Your task to perform on an android device: add a label to a message in the gmail app Image 0: 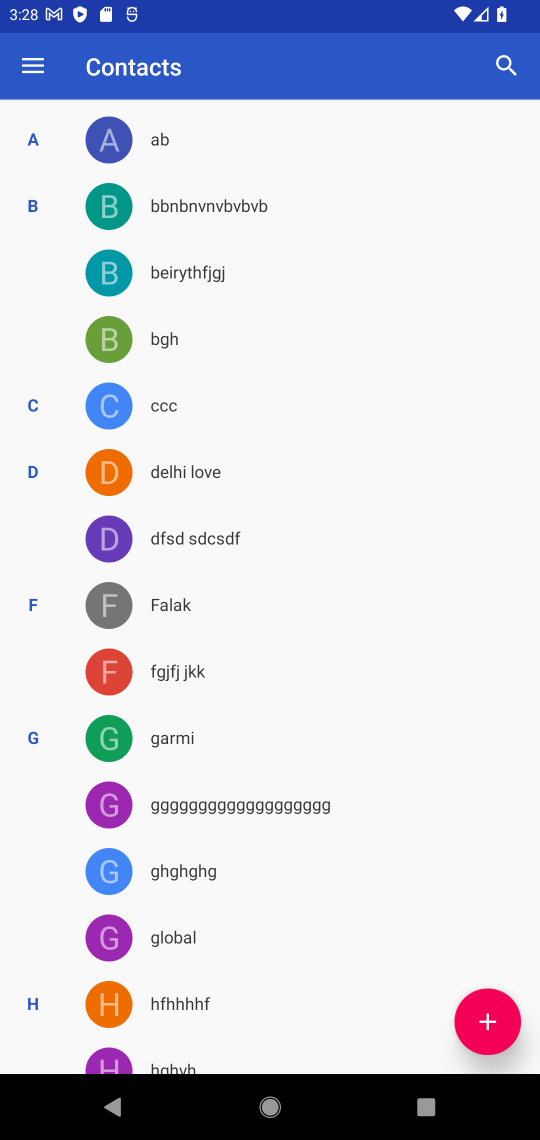
Step 0: press home button
Your task to perform on an android device: add a label to a message in the gmail app Image 1: 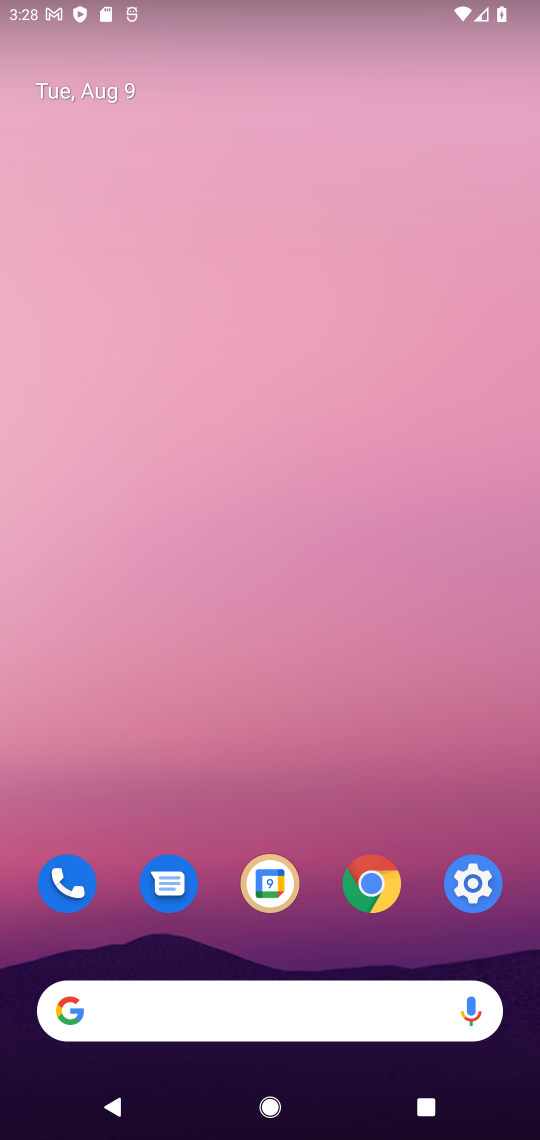
Step 1: drag from (367, 1037) to (303, 345)
Your task to perform on an android device: add a label to a message in the gmail app Image 2: 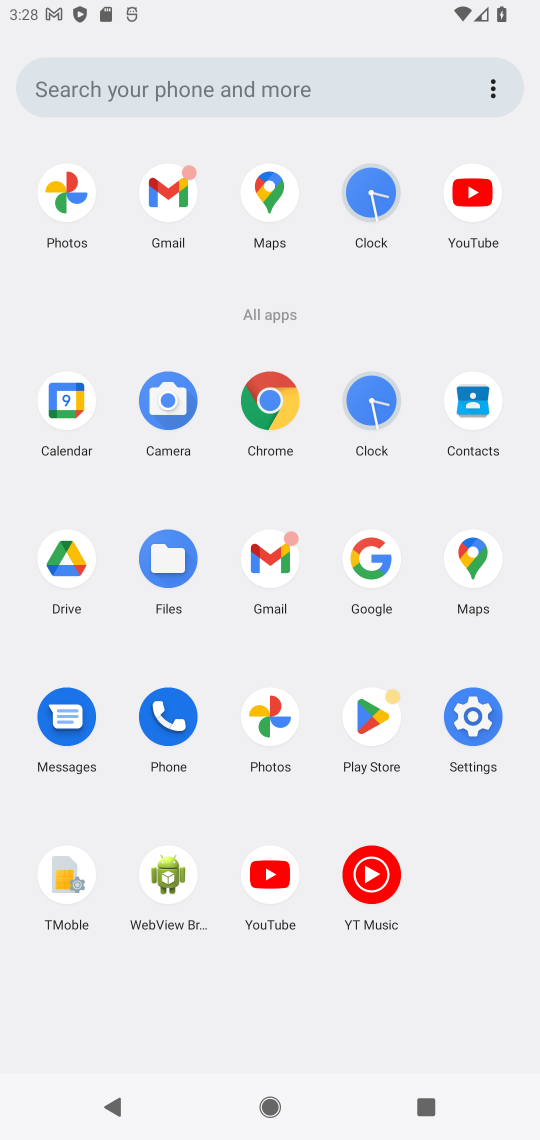
Step 2: click (169, 196)
Your task to perform on an android device: add a label to a message in the gmail app Image 3: 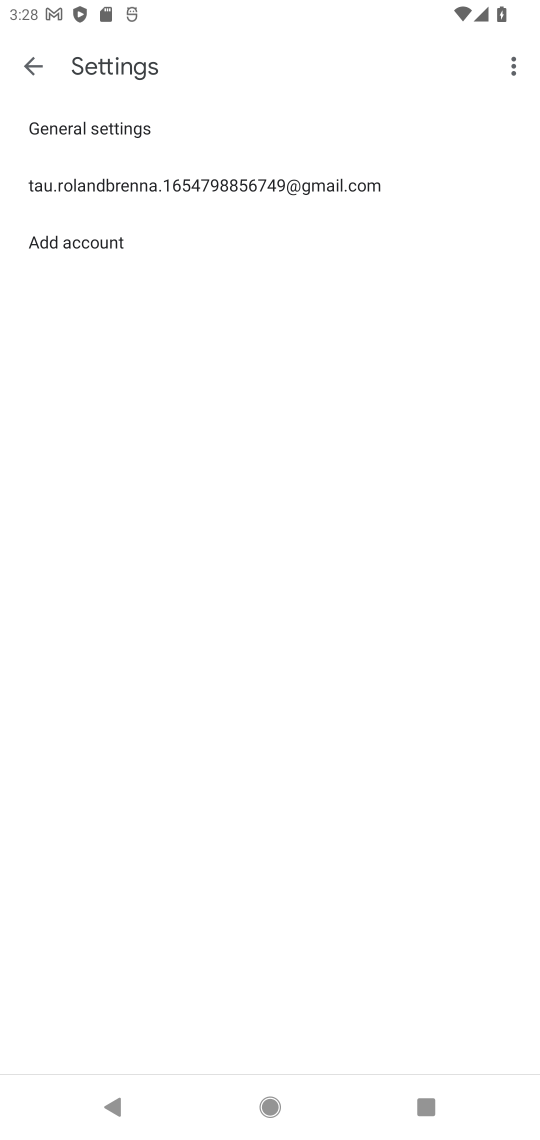
Step 3: click (23, 60)
Your task to perform on an android device: add a label to a message in the gmail app Image 4: 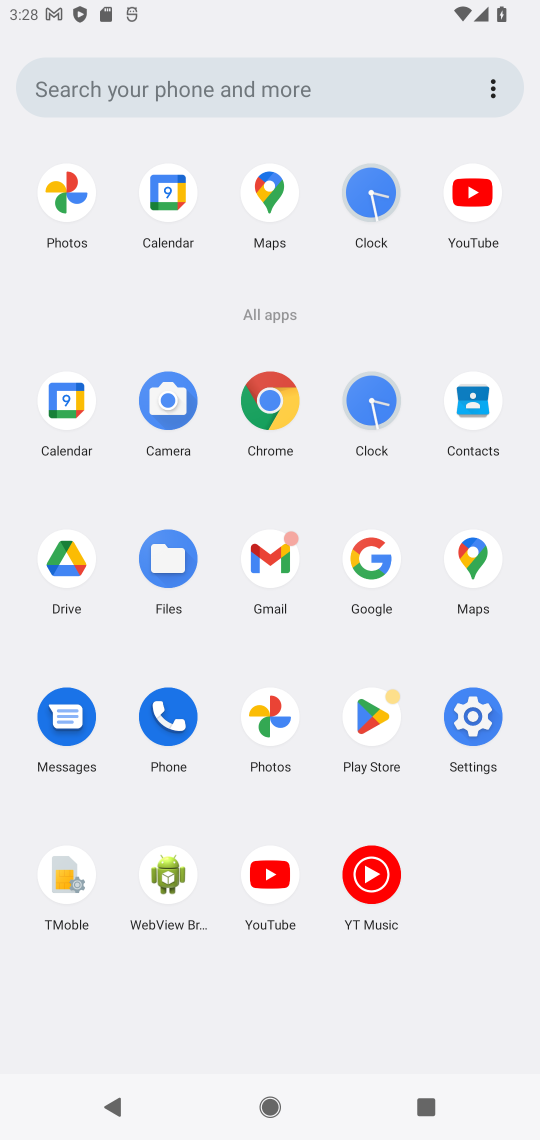
Step 4: click (277, 543)
Your task to perform on an android device: add a label to a message in the gmail app Image 5: 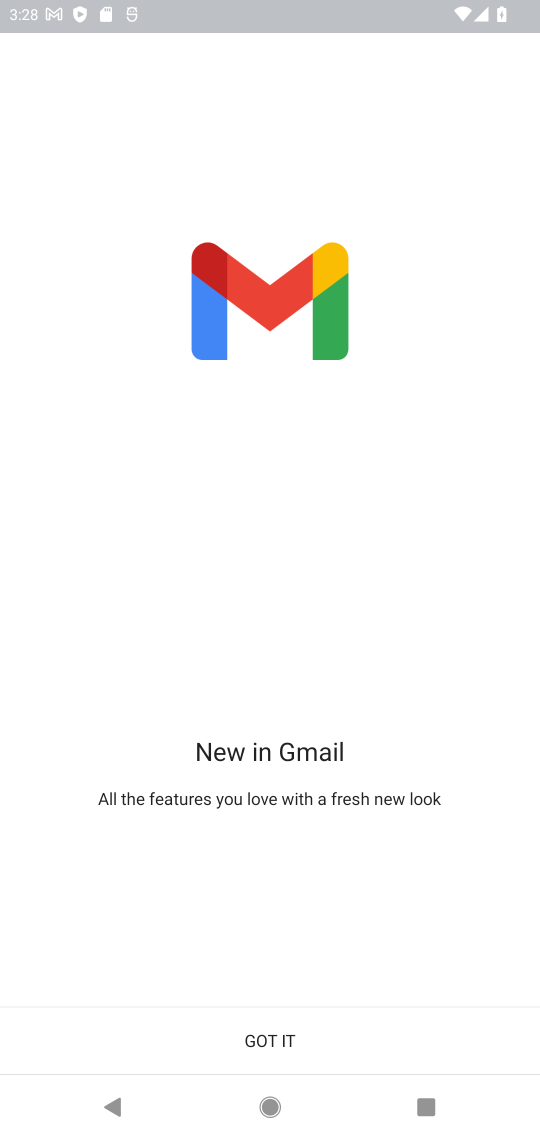
Step 5: click (264, 1036)
Your task to perform on an android device: add a label to a message in the gmail app Image 6: 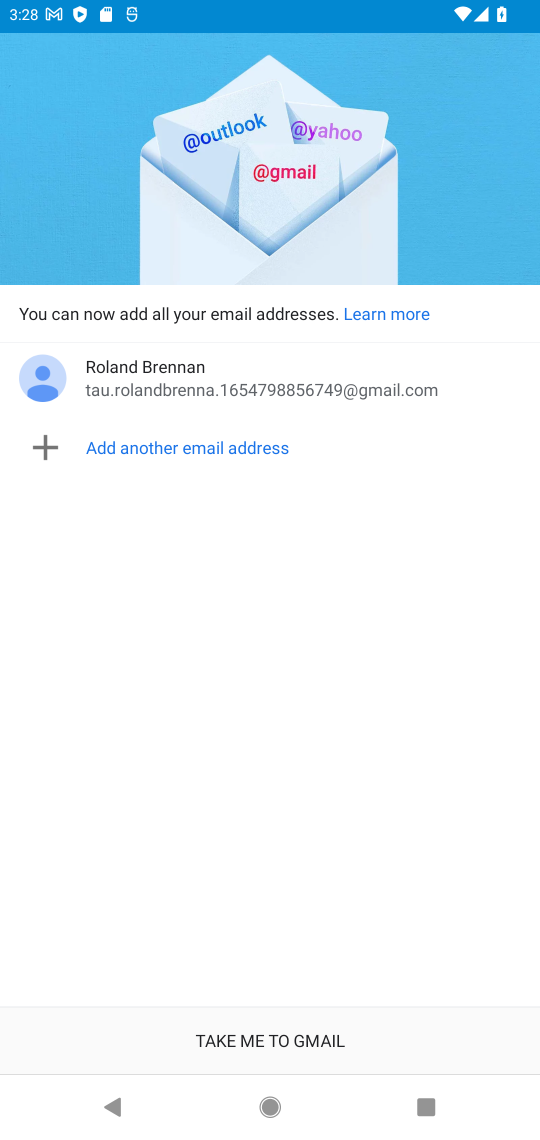
Step 6: click (253, 1038)
Your task to perform on an android device: add a label to a message in the gmail app Image 7: 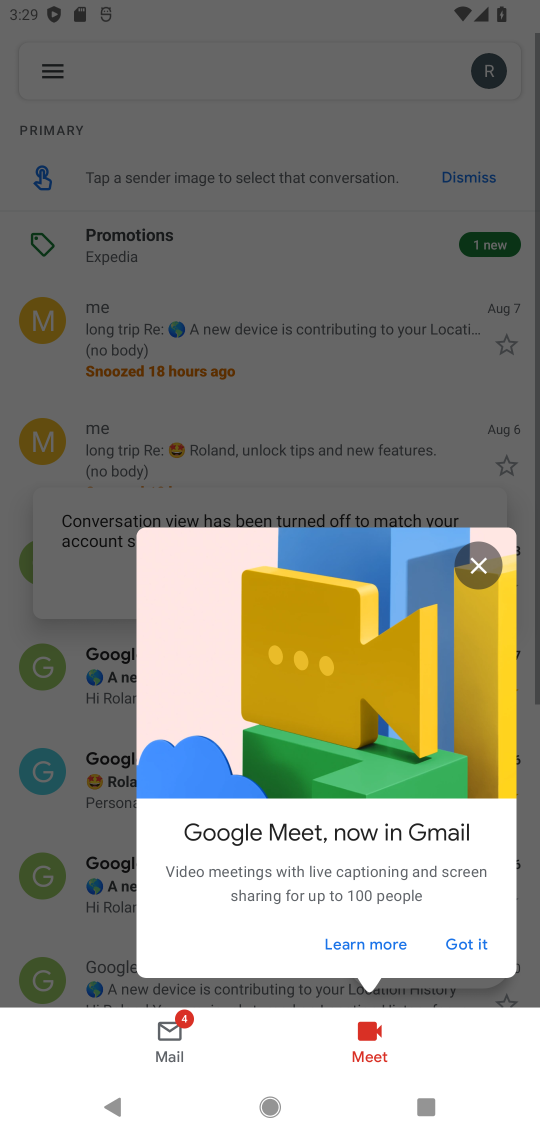
Step 7: click (460, 938)
Your task to perform on an android device: add a label to a message in the gmail app Image 8: 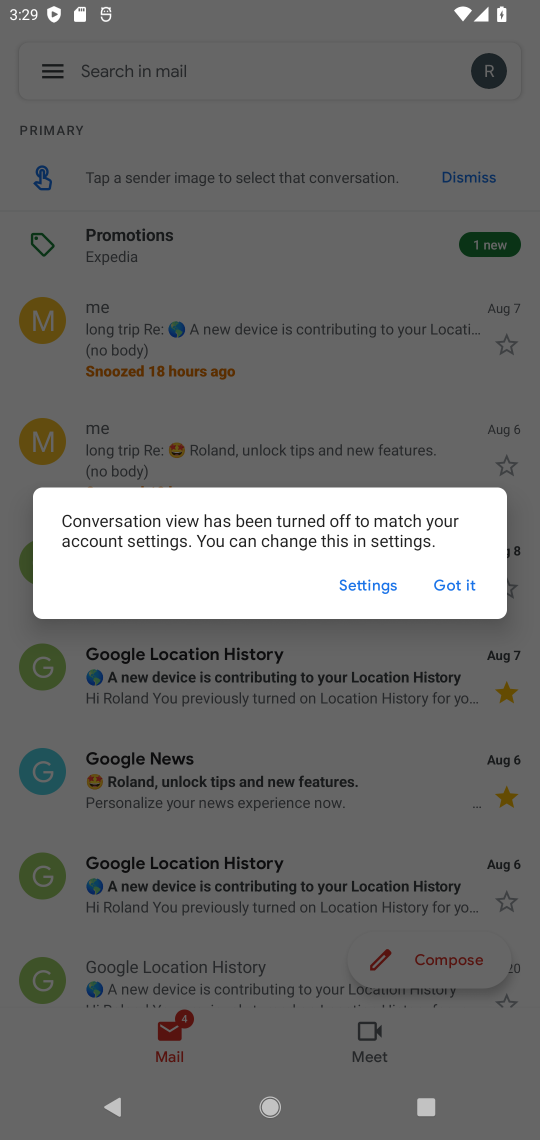
Step 8: click (438, 577)
Your task to perform on an android device: add a label to a message in the gmail app Image 9: 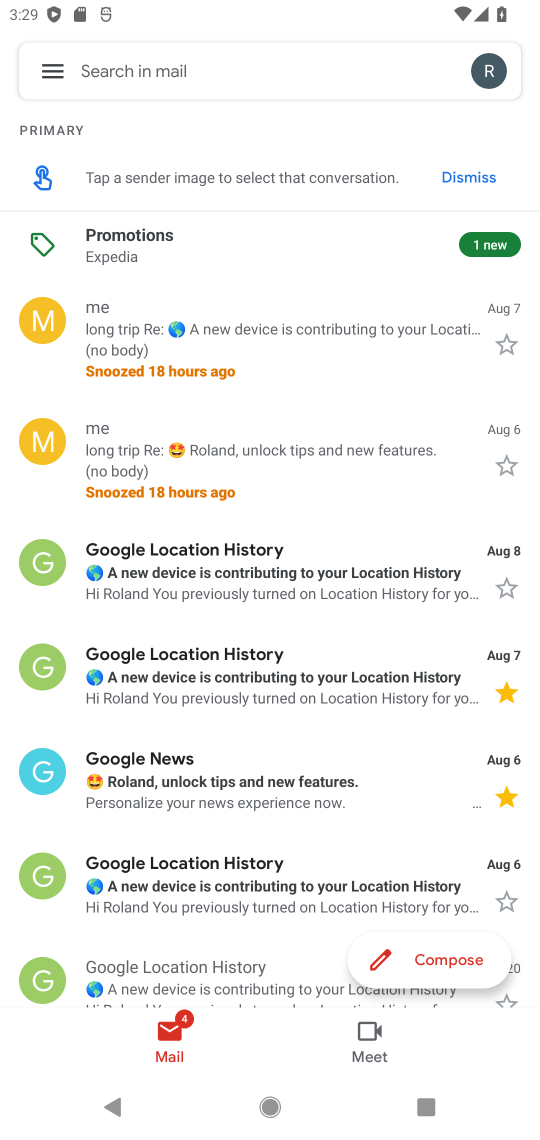
Step 9: click (53, 69)
Your task to perform on an android device: add a label to a message in the gmail app Image 10: 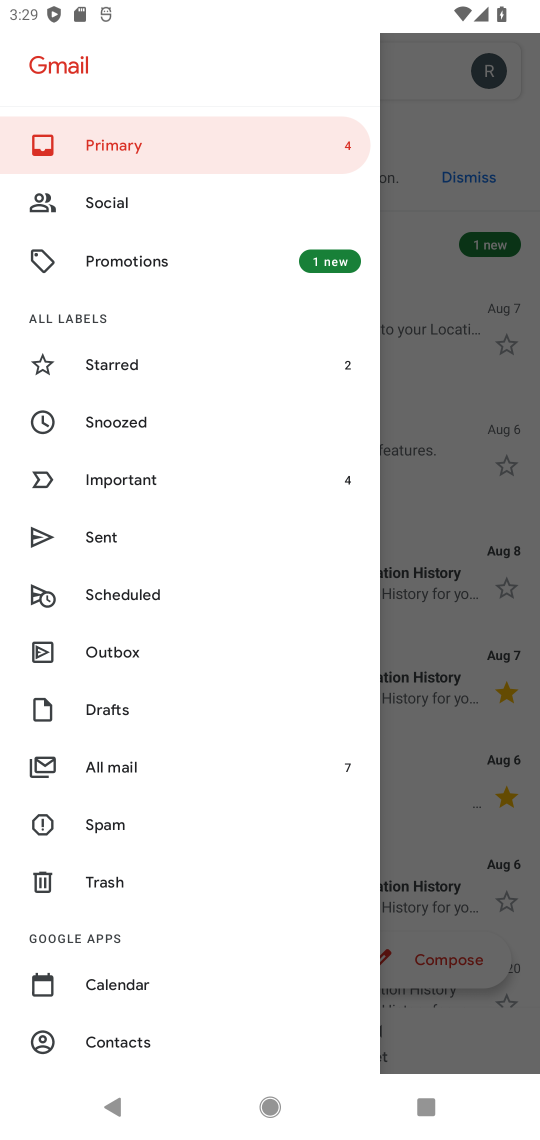
Step 10: drag from (141, 1020) to (208, 896)
Your task to perform on an android device: add a label to a message in the gmail app Image 11: 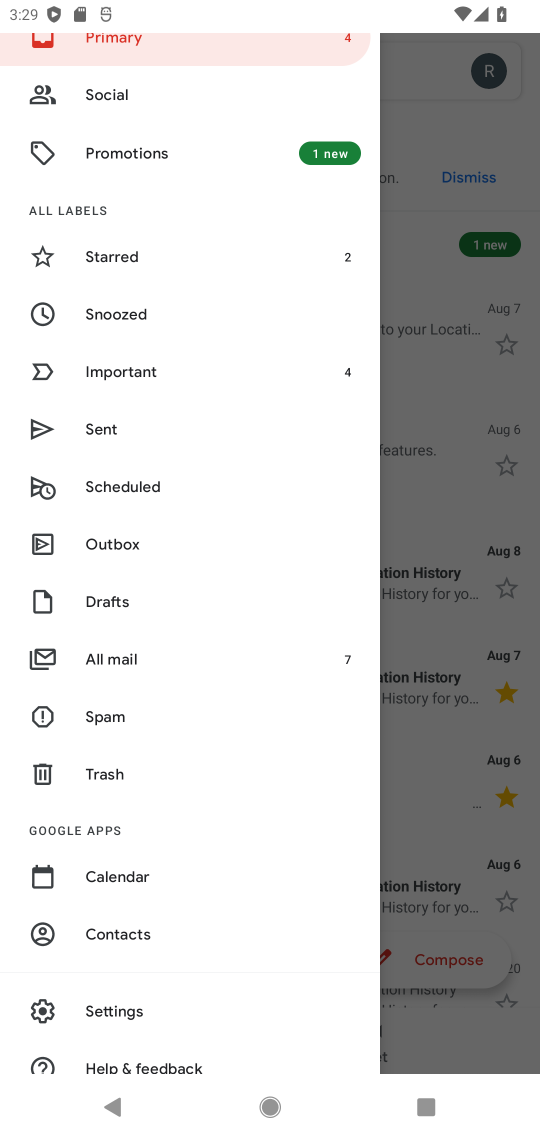
Step 11: click (109, 1008)
Your task to perform on an android device: add a label to a message in the gmail app Image 12: 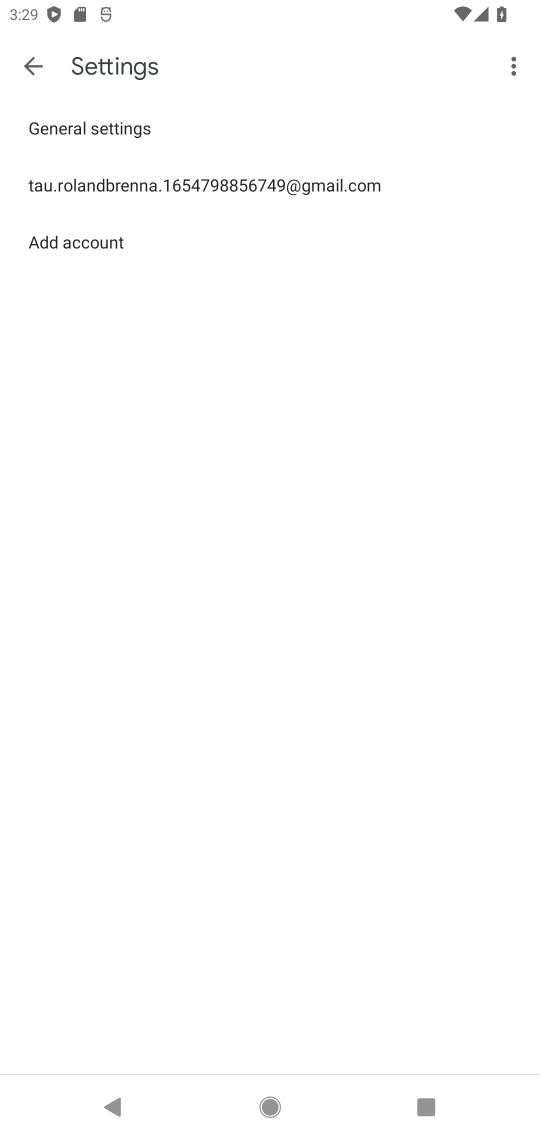
Step 12: click (140, 174)
Your task to perform on an android device: add a label to a message in the gmail app Image 13: 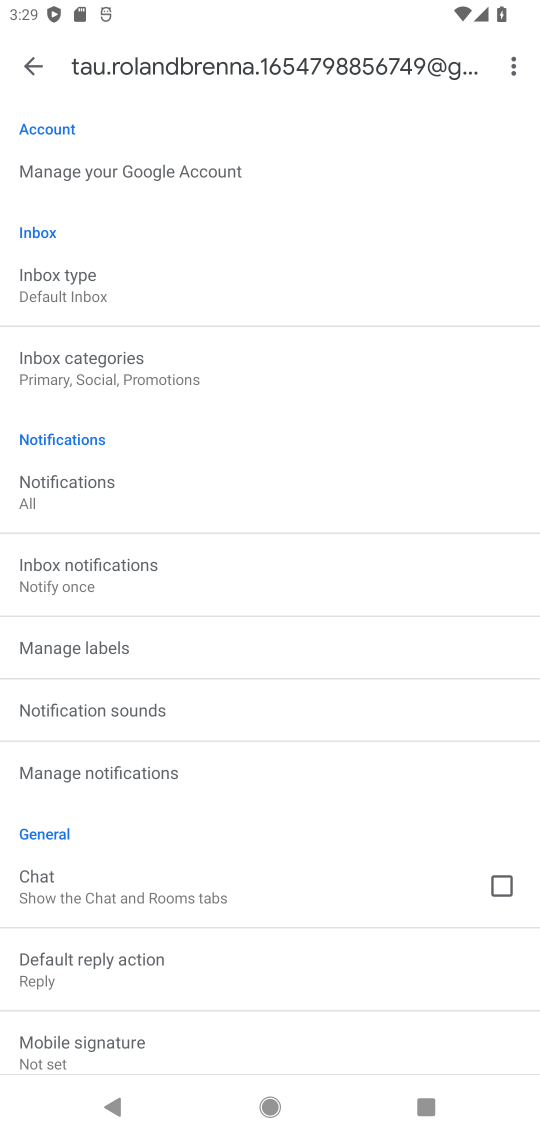
Step 13: click (123, 635)
Your task to perform on an android device: add a label to a message in the gmail app Image 14: 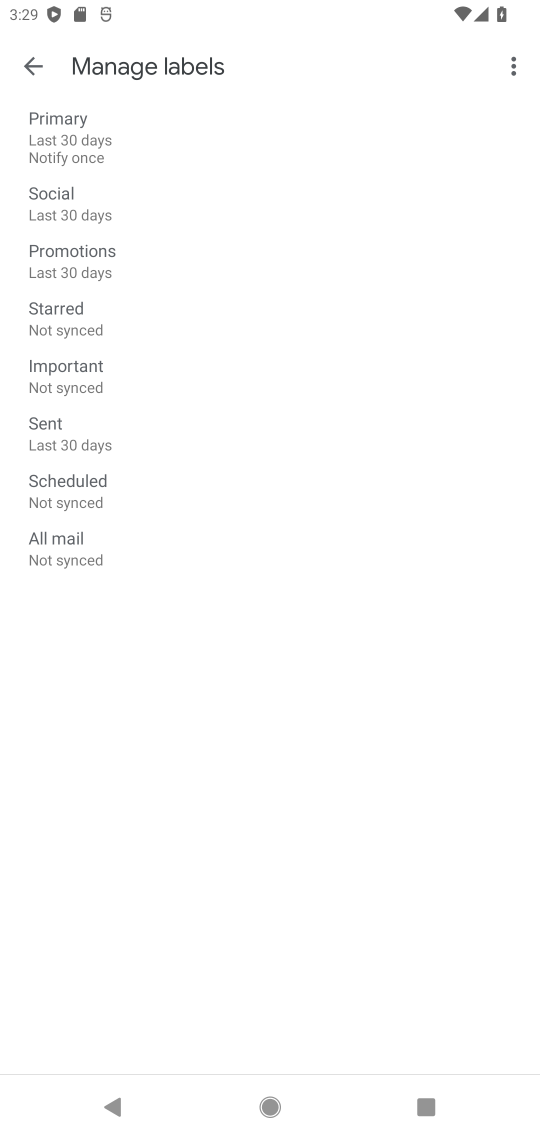
Step 14: click (93, 177)
Your task to perform on an android device: add a label to a message in the gmail app Image 15: 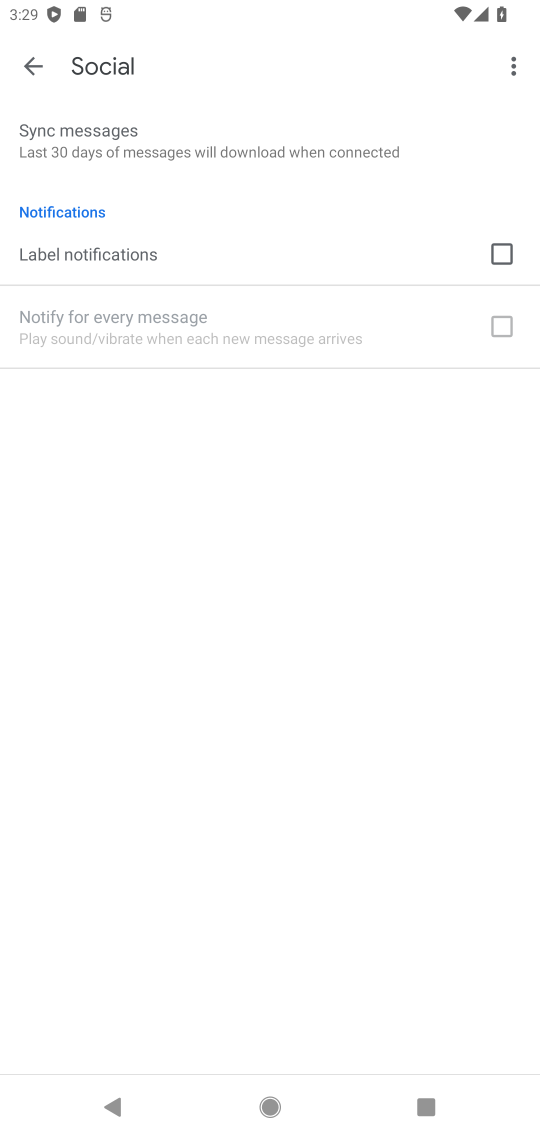
Step 15: task complete